Your task to perform on an android device: Search for Italian restaurants on Maps Image 0: 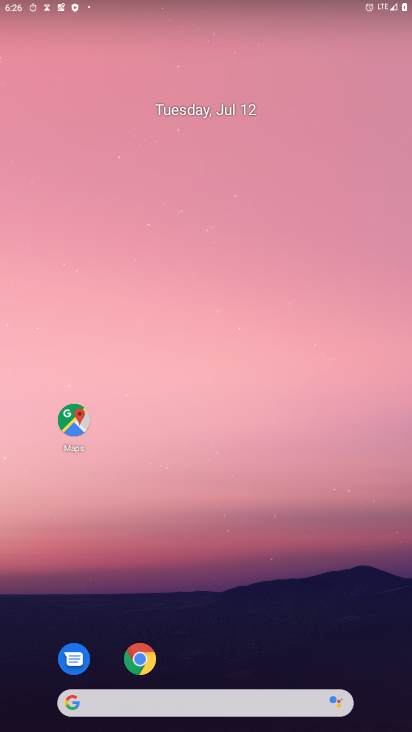
Step 0: click (65, 406)
Your task to perform on an android device: Search for Italian restaurants on Maps Image 1: 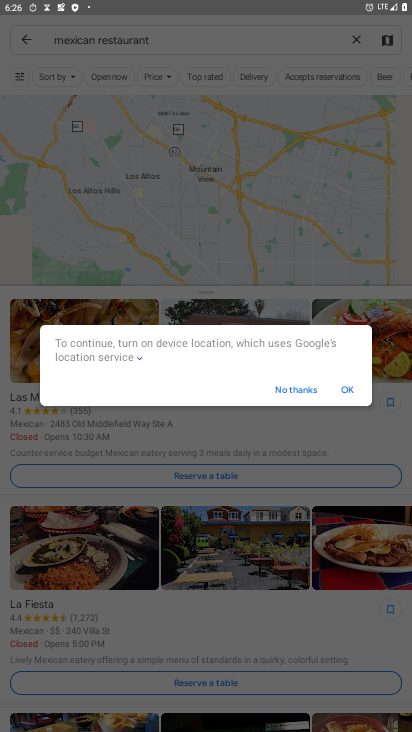
Step 1: click (307, 387)
Your task to perform on an android device: Search for Italian restaurants on Maps Image 2: 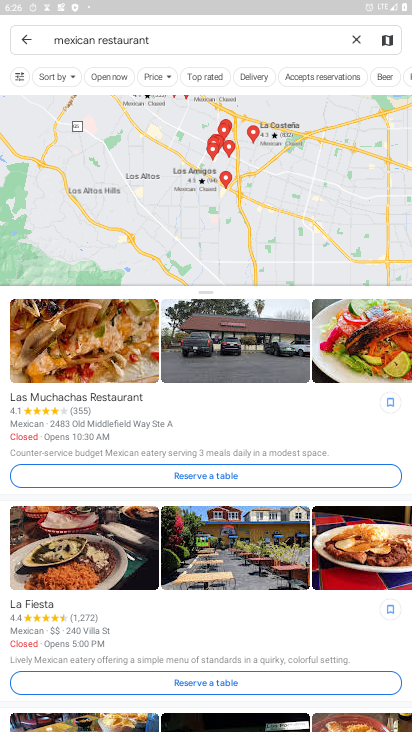
Step 2: click (25, 42)
Your task to perform on an android device: Search for Italian restaurants on Maps Image 3: 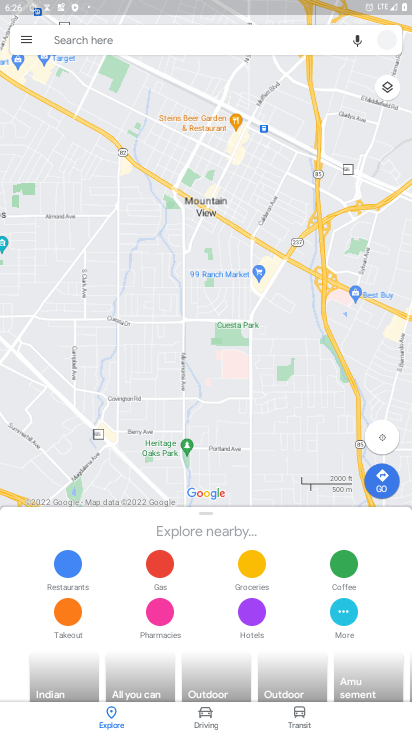
Step 3: click (125, 33)
Your task to perform on an android device: Search for Italian restaurants on Maps Image 4: 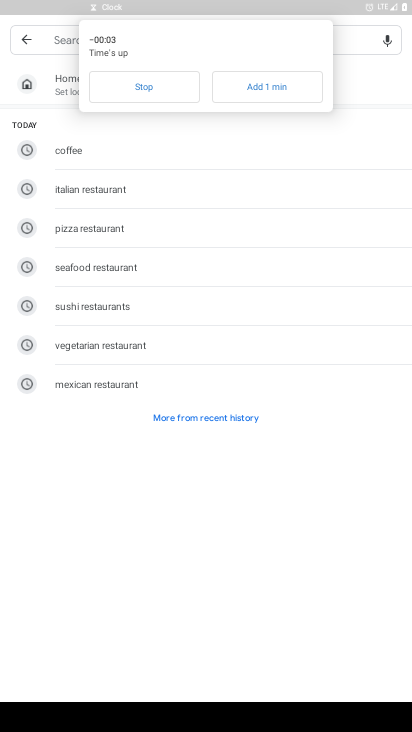
Step 4: click (120, 191)
Your task to perform on an android device: Search for Italian restaurants on Maps Image 5: 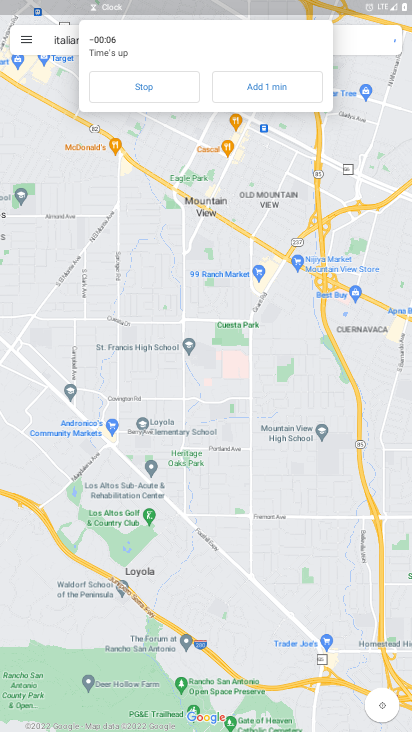
Step 5: click (144, 93)
Your task to perform on an android device: Search for Italian restaurants on Maps Image 6: 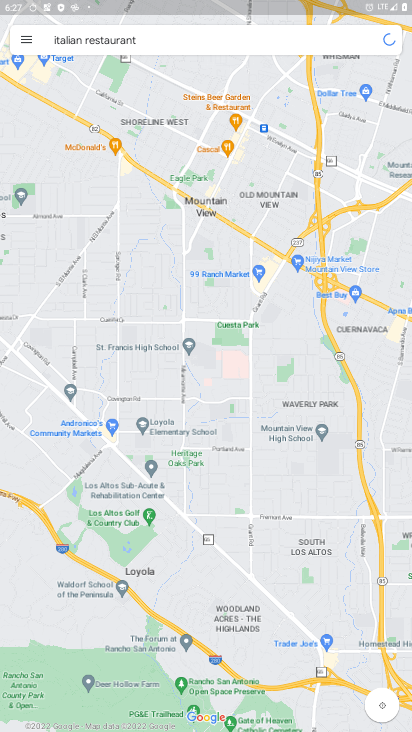
Step 6: task complete